Your task to perform on an android device: Show me popular games on the Play Store Image 0: 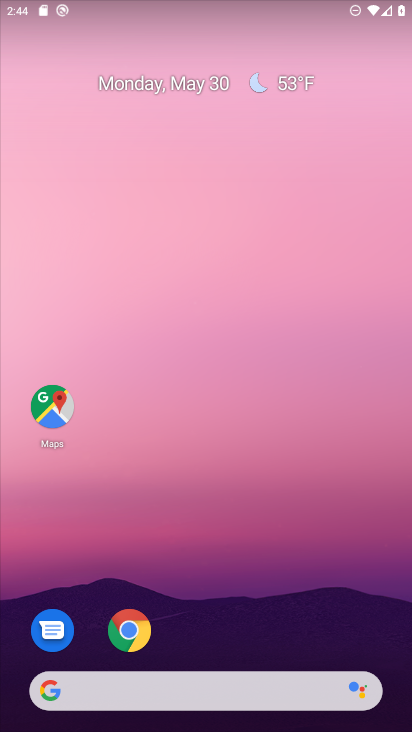
Step 0: drag from (187, 682) to (277, 154)
Your task to perform on an android device: Show me popular games on the Play Store Image 1: 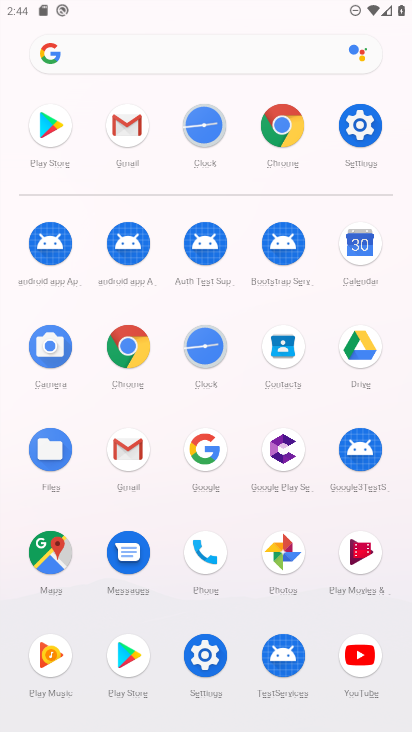
Step 1: click (126, 649)
Your task to perform on an android device: Show me popular games on the Play Store Image 2: 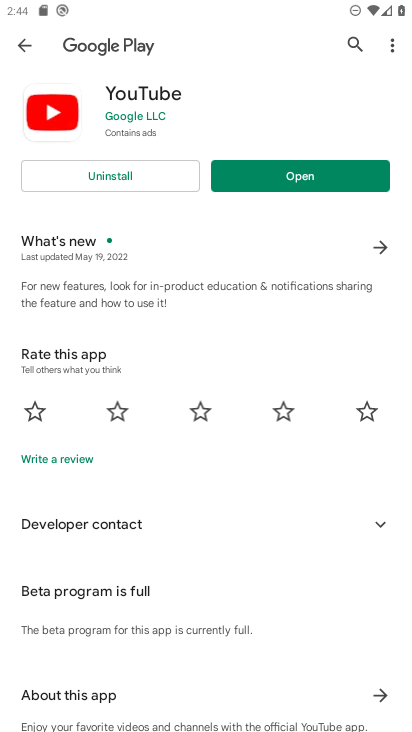
Step 2: click (21, 42)
Your task to perform on an android device: Show me popular games on the Play Store Image 3: 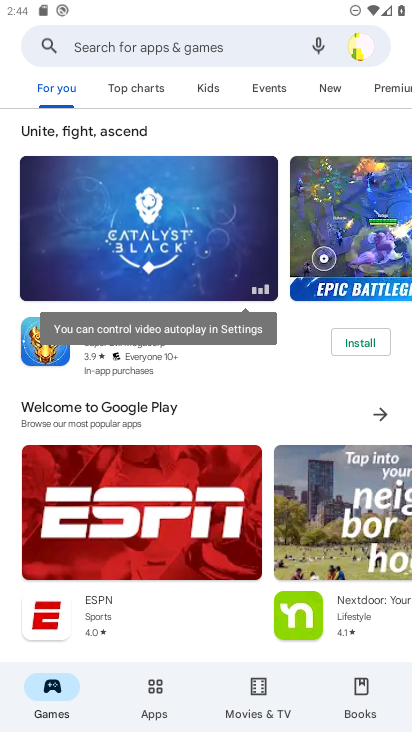
Step 3: drag from (183, 565) to (151, 89)
Your task to perform on an android device: Show me popular games on the Play Store Image 4: 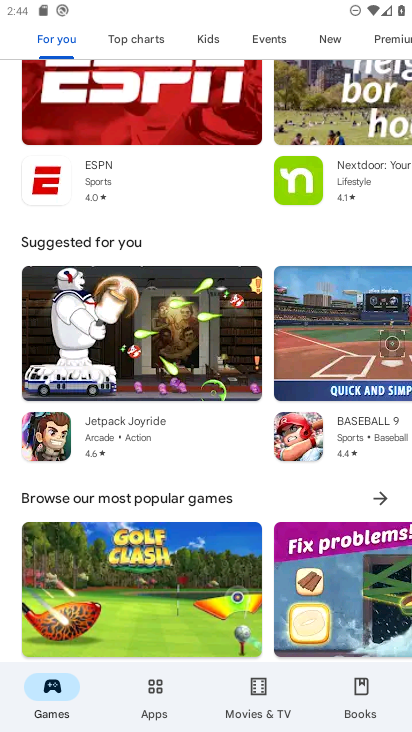
Step 4: click (240, 494)
Your task to perform on an android device: Show me popular games on the Play Store Image 5: 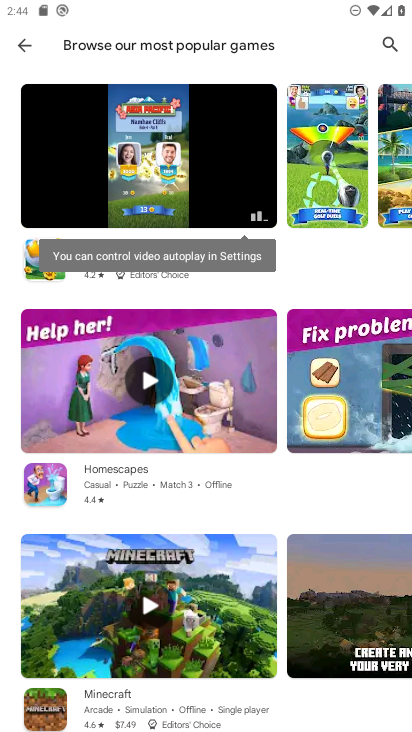
Step 5: task complete